Your task to perform on an android device: check storage Image 0: 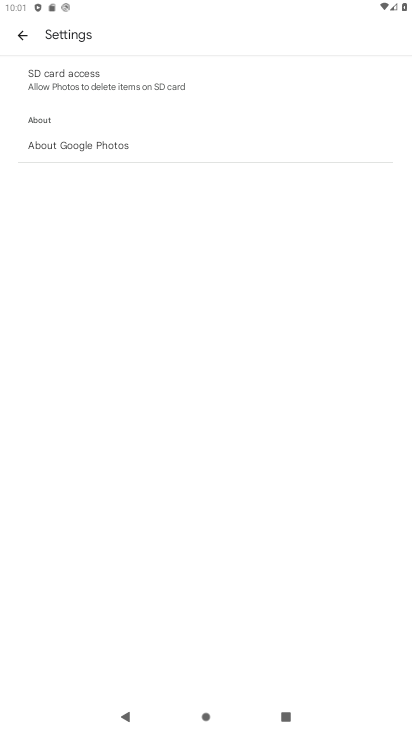
Step 0: press home button
Your task to perform on an android device: check storage Image 1: 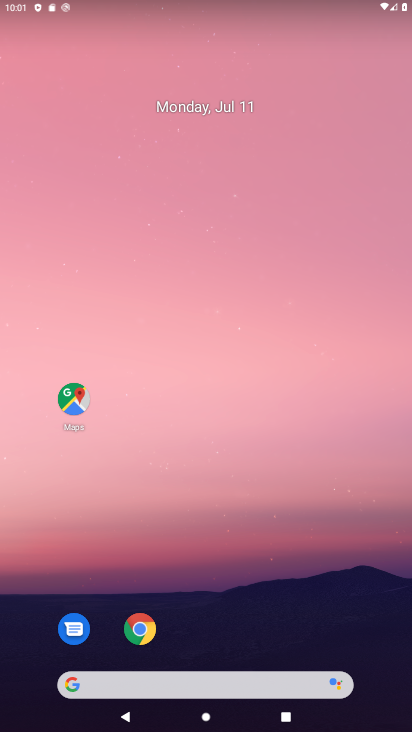
Step 1: drag from (299, 569) to (256, 218)
Your task to perform on an android device: check storage Image 2: 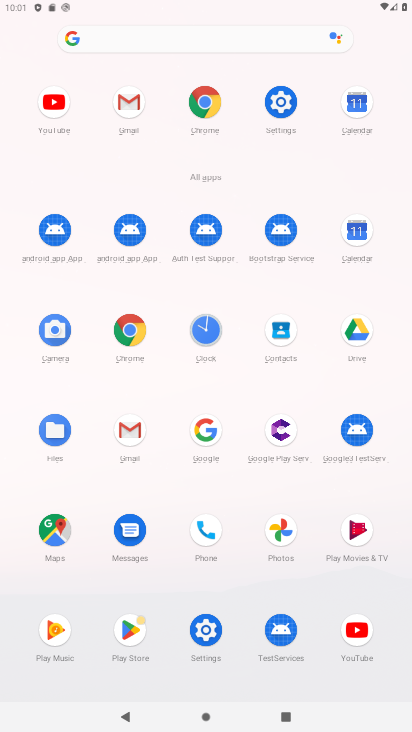
Step 2: click (260, 130)
Your task to perform on an android device: check storage Image 3: 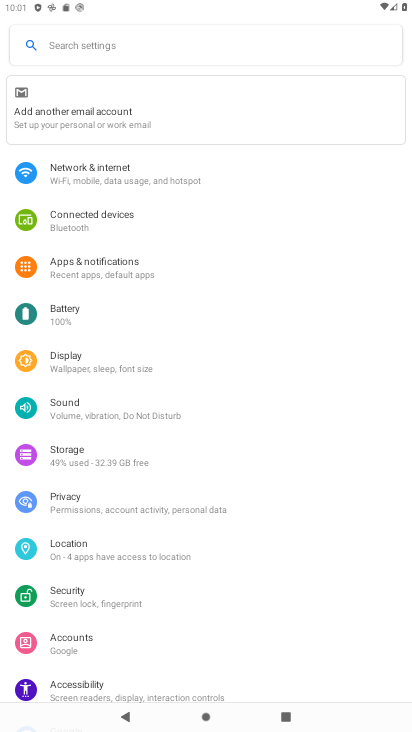
Step 3: click (92, 445)
Your task to perform on an android device: check storage Image 4: 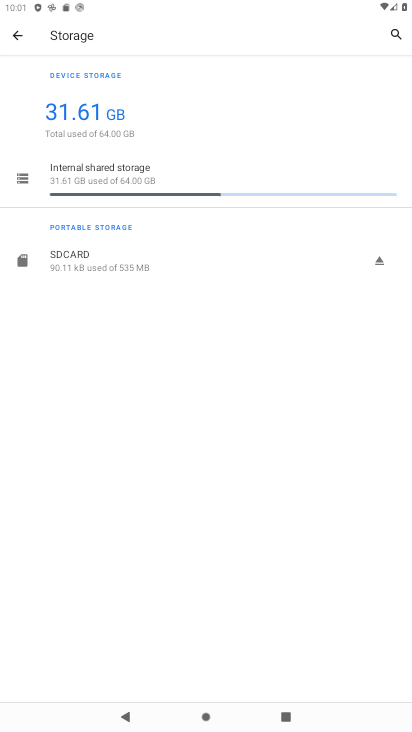
Step 4: task complete